Your task to perform on an android device: turn off location Image 0: 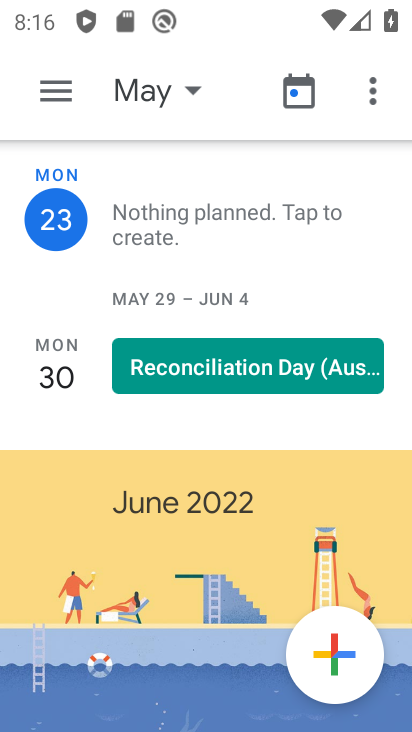
Step 0: press home button
Your task to perform on an android device: turn off location Image 1: 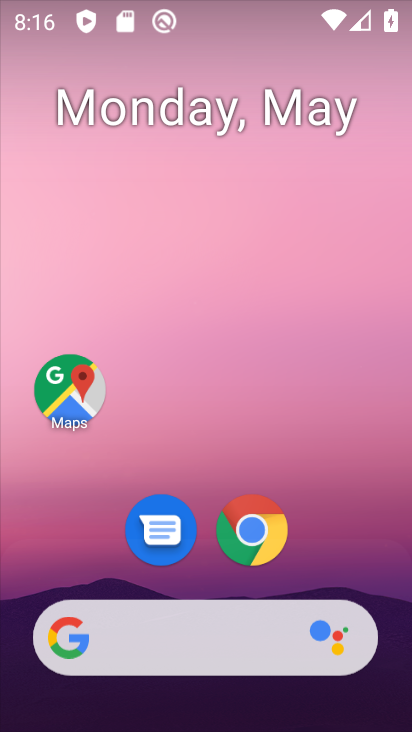
Step 1: drag from (107, 588) to (223, 6)
Your task to perform on an android device: turn off location Image 2: 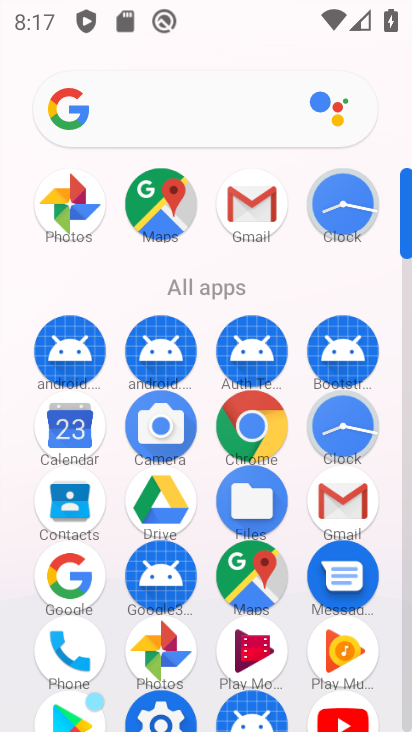
Step 2: drag from (108, 660) to (200, 228)
Your task to perform on an android device: turn off location Image 3: 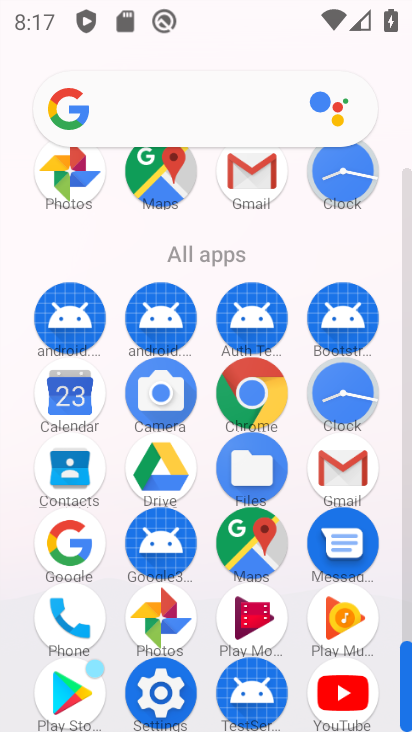
Step 3: click (157, 666)
Your task to perform on an android device: turn off location Image 4: 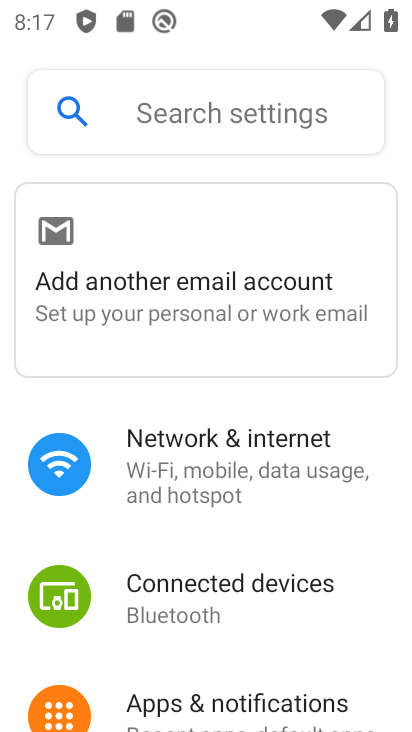
Step 4: drag from (241, 662) to (322, 207)
Your task to perform on an android device: turn off location Image 5: 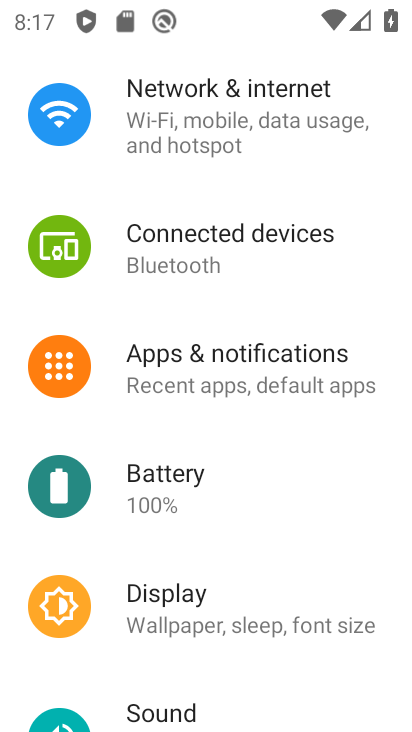
Step 5: drag from (204, 720) to (288, 222)
Your task to perform on an android device: turn off location Image 6: 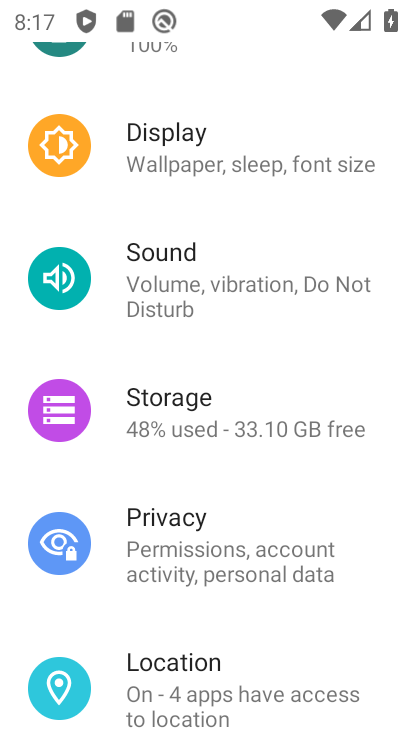
Step 6: drag from (181, 616) to (243, 166)
Your task to perform on an android device: turn off location Image 7: 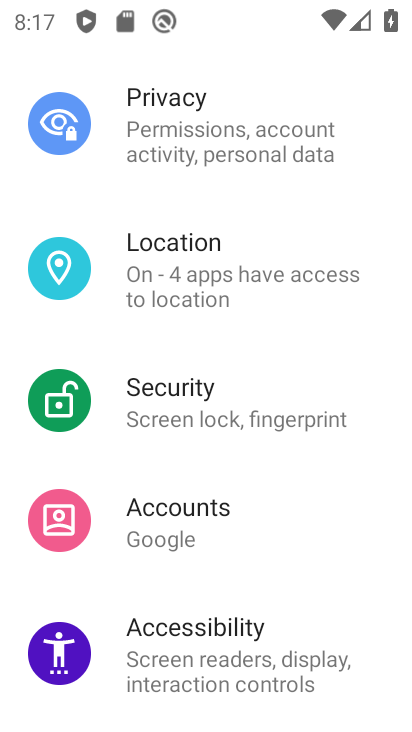
Step 7: click (211, 282)
Your task to perform on an android device: turn off location Image 8: 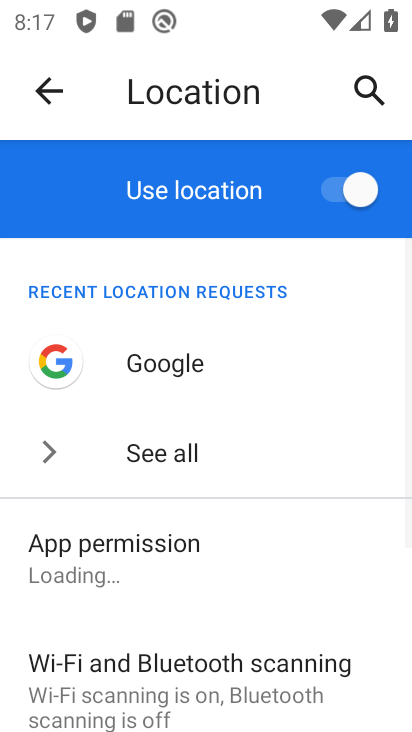
Step 8: click (339, 182)
Your task to perform on an android device: turn off location Image 9: 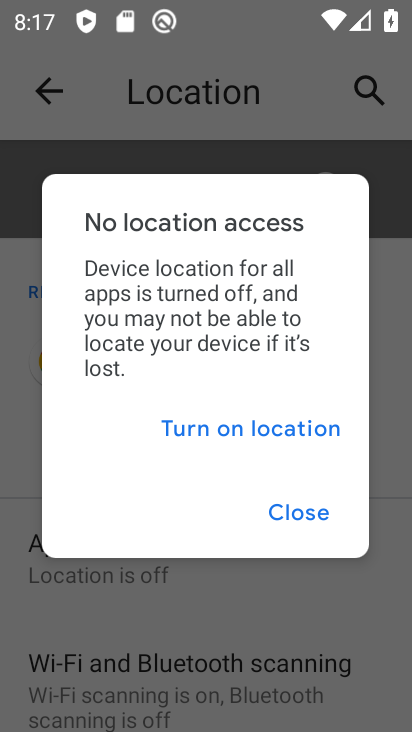
Step 9: task complete